Your task to perform on an android device: allow notifications from all sites in the chrome app Image 0: 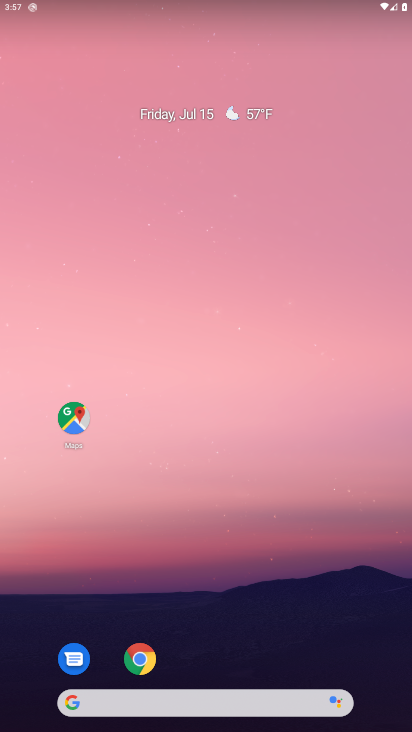
Step 0: click (131, 649)
Your task to perform on an android device: allow notifications from all sites in the chrome app Image 1: 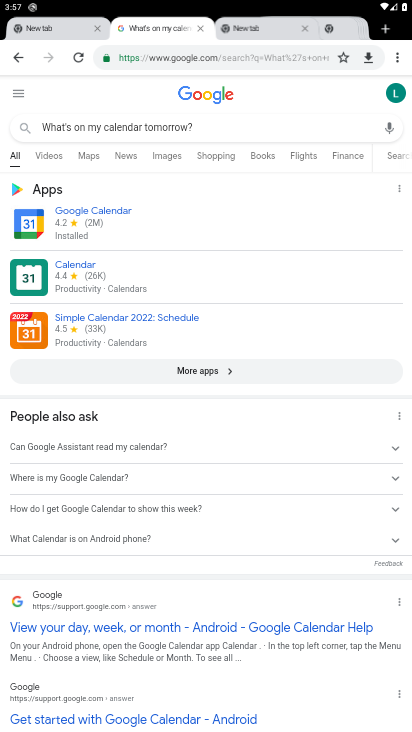
Step 1: click (396, 59)
Your task to perform on an android device: allow notifications from all sites in the chrome app Image 2: 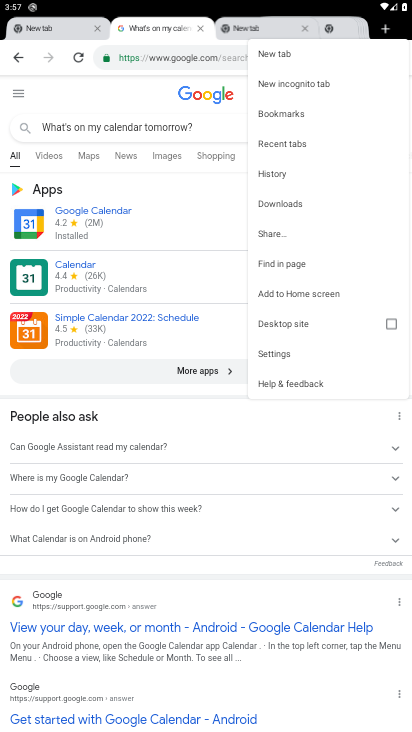
Step 2: click (291, 354)
Your task to perform on an android device: allow notifications from all sites in the chrome app Image 3: 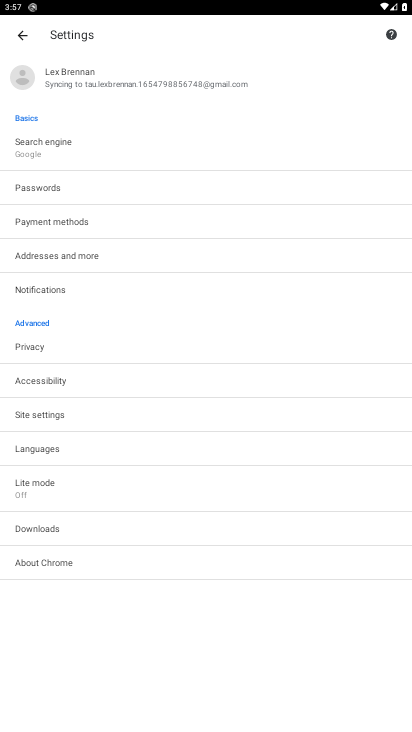
Step 3: click (36, 409)
Your task to perform on an android device: allow notifications from all sites in the chrome app Image 4: 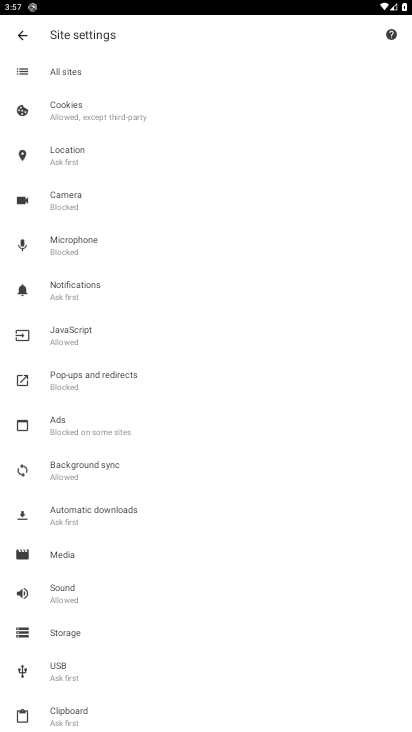
Step 4: drag from (136, 510) to (169, 143)
Your task to perform on an android device: allow notifications from all sites in the chrome app Image 5: 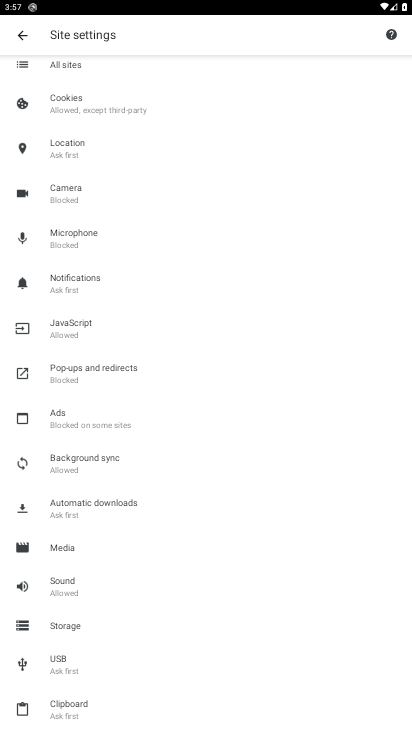
Step 5: click (80, 276)
Your task to perform on an android device: allow notifications from all sites in the chrome app Image 6: 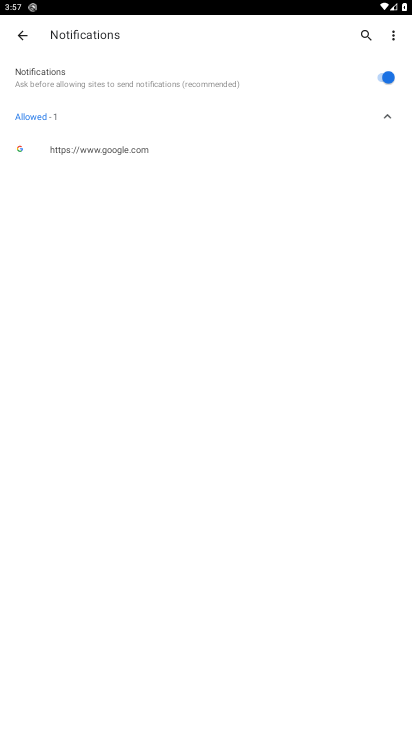
Step 6: task complete